Your task to perform on an android device: Open settings on Google Maps Image 0: 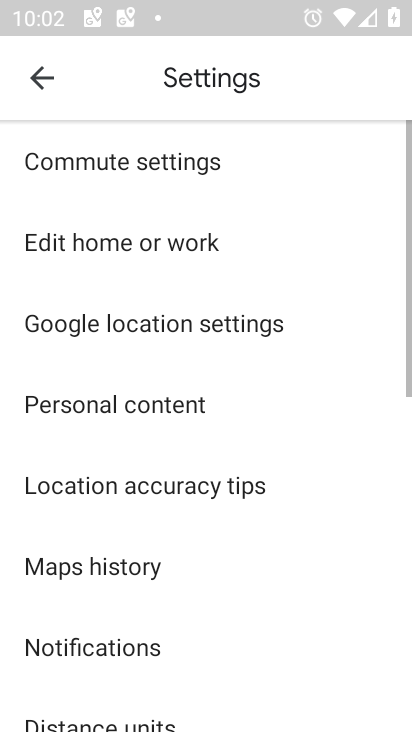
Step 0: press home button
Your task to perform on an android device: Open settings on Google Maps Image 1: 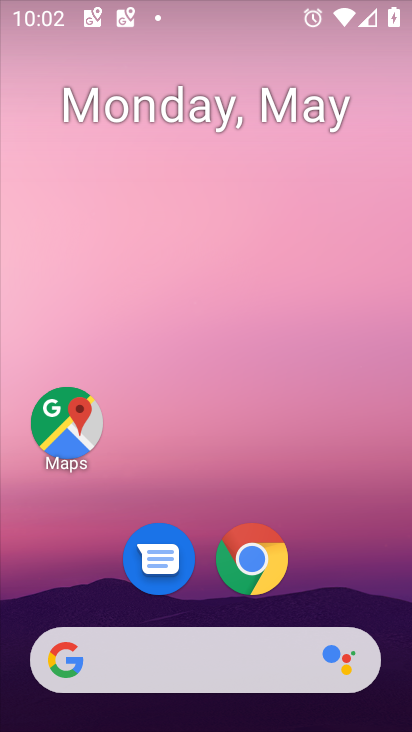
Step 1: drag from (387, 642) to (273, 69)
Your task to perform on an android device: Open settings on Google Maps Image 2: 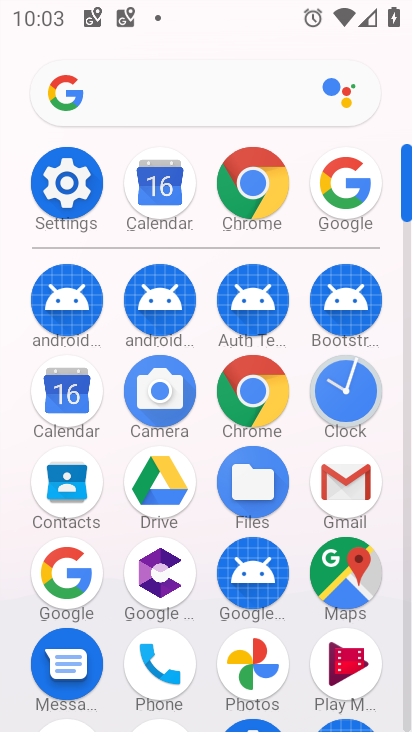
Step 2: click (360, 559)
Your task to perform on an android device: Open settings on Google Maps Image 3: 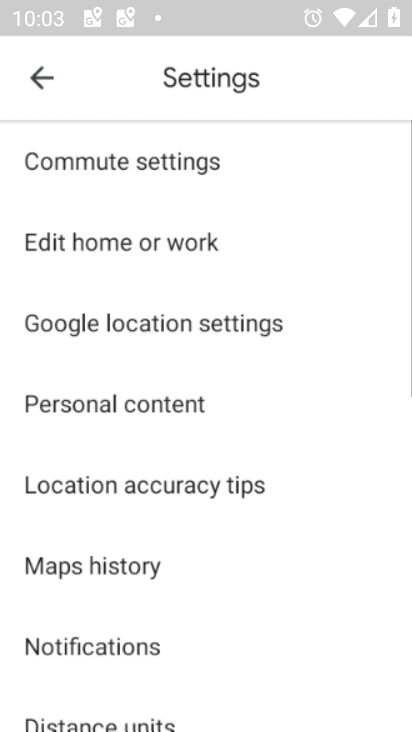
Step 3: task complete